Your task to perform on an android device: change the clock display to analog Image 0: 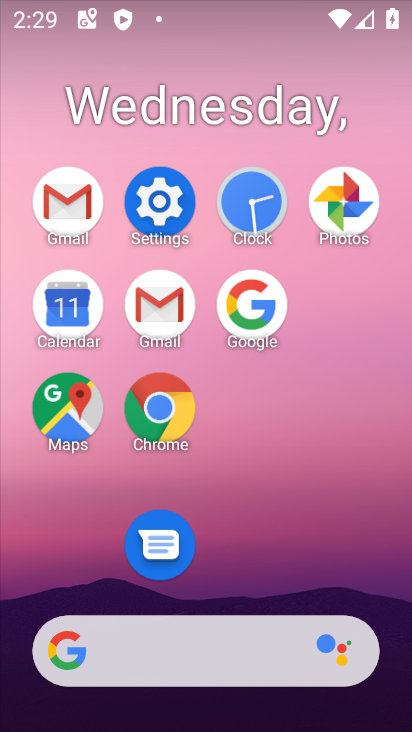
Step 0: click (253, 212)
Your task to perform on an android device: change the clock display to analog Image 1: 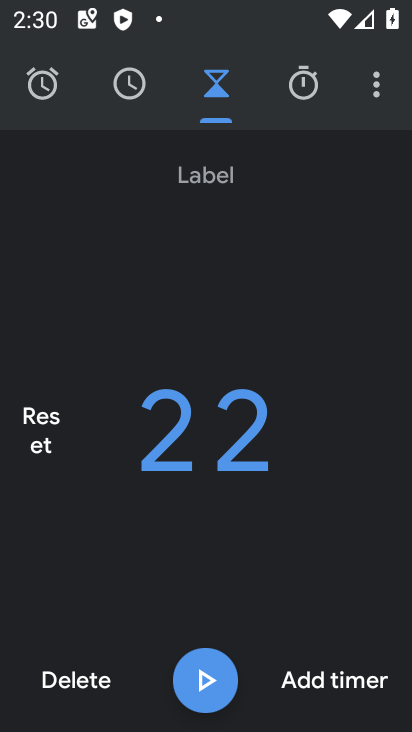
Step 1: click (366, 79)
Your task to perform on an android device: change the clock display to analog Image 2: 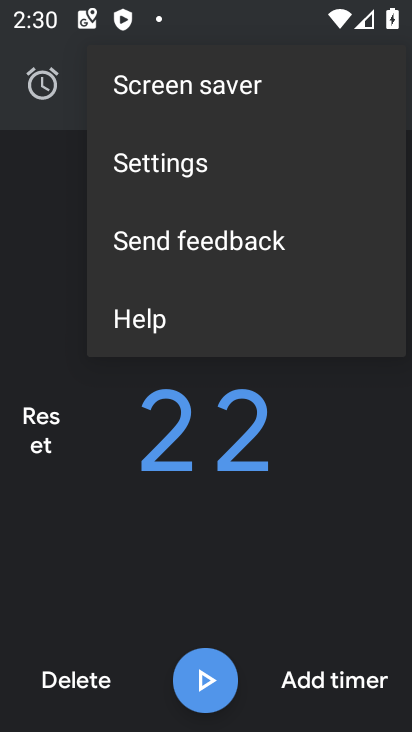
Step 2: click (219, 177)
Your task to perform on an android device: change the clock display to analog Image 3: 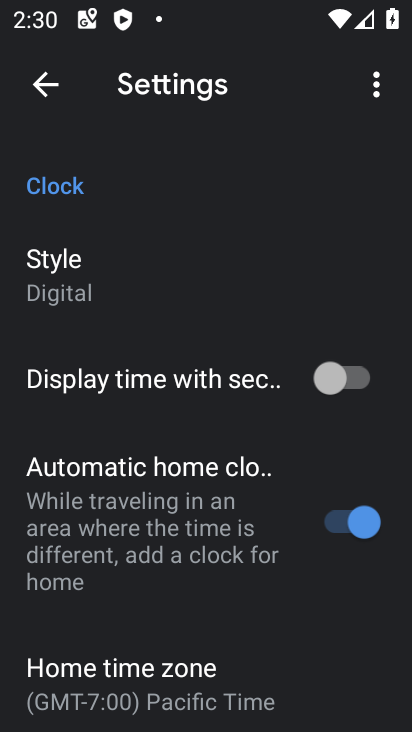
Step 3: click (84, 279)
Your task to perform on an android device: change the clock display to analog Image 4: 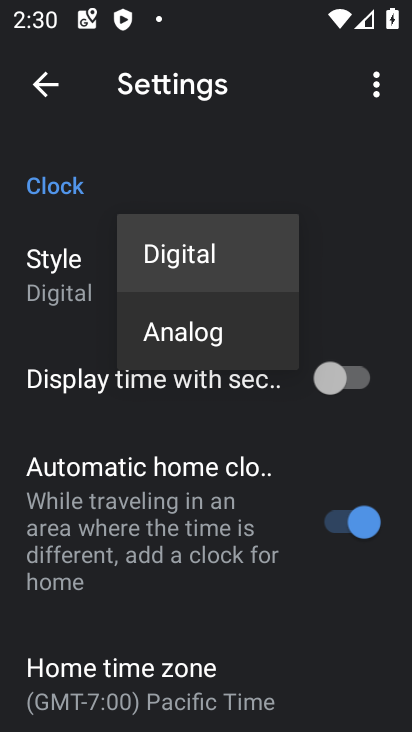
Step 4: click (196, 330)
Your task to perform on an android device: change the clock display to analog Image 5: 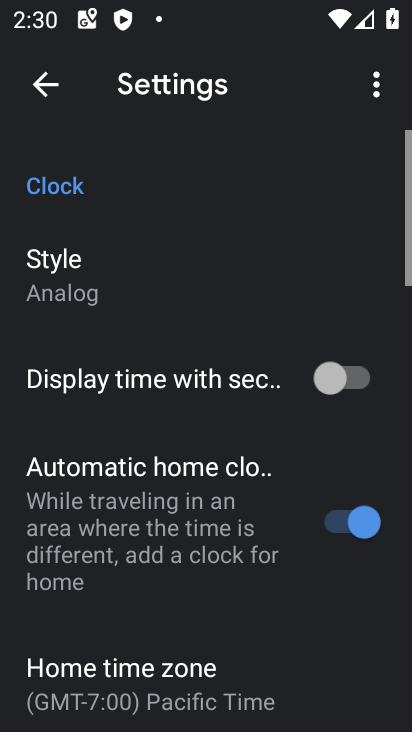
Step 5: task complete